Your task to perform on an android device: Open settings Image 0: 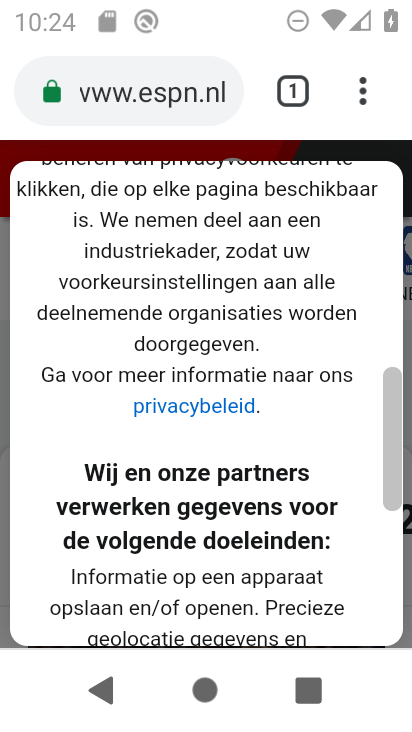
Step 0: drag from (211, 614) to (176, 130)
Your task to perform on an android device: Open settings Image 1: 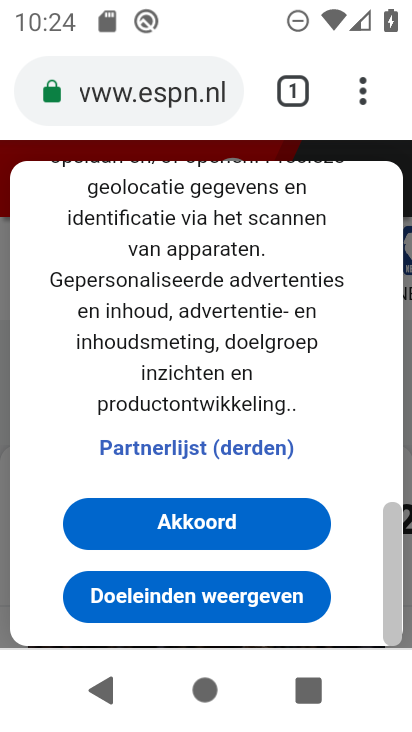
Step 1: press home button
Your task to perform on an android device: Open settings Image 2: 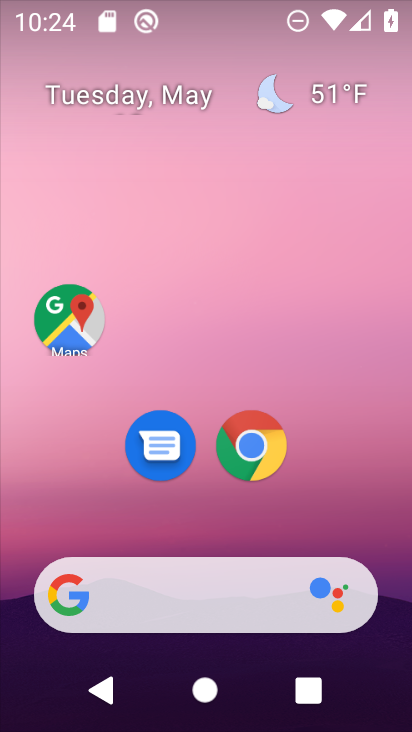
Step 2: drag from (171, 580) to (195, 174)
Your task to perform on an android device: Open settings Image 3: 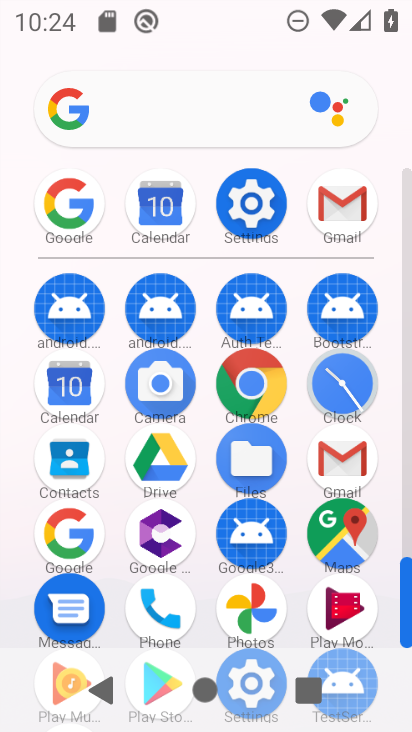
Step 3: click (257, 203)
Your task to perform on an android device: Open settings Image 4: 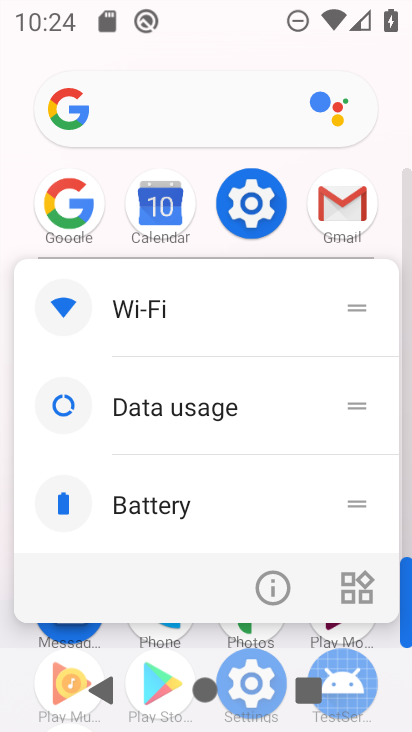
Step 4: click (257, 201)
Your task to perform on an android device: Open settings Image 5: 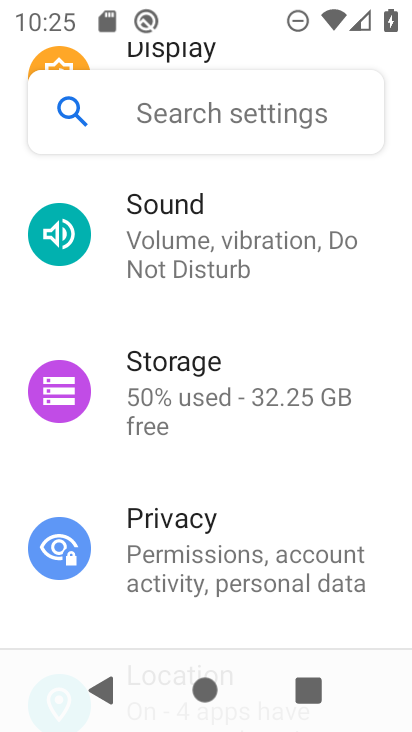
Step 5: task complete